Your task to perform on an android device: Open maps Image 0: 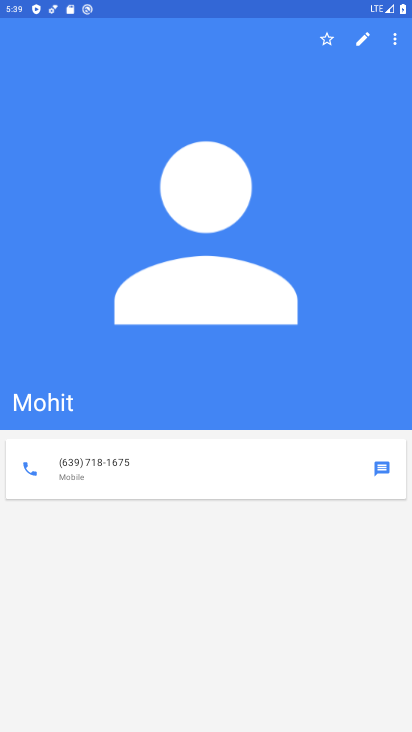
Step 0: press home button
Your task to perform on an android device: Open maps Image 1: 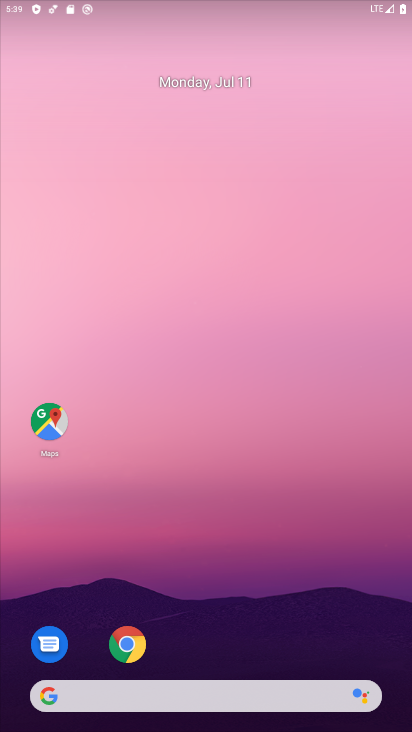
Step 1: drag from (314, 582) to (349, 43)
Your task to perform on an android device: Open maps Image 2: 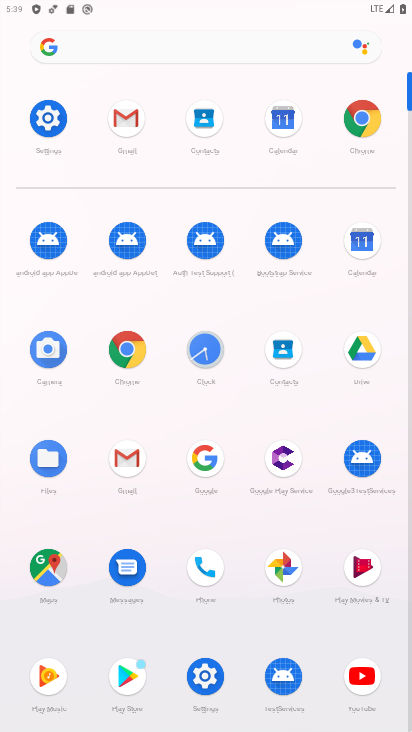
Step 2: click (57, 569)
Your task to perform on an android device: Open maps Image 3: 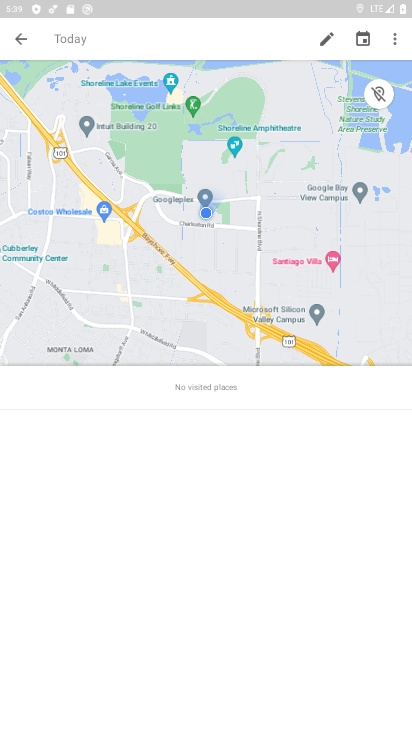
Step 3: task complete